Your task to perform on an android device: Search for bose soundlink mini on ebay.com, select the first entry, add it to the cart, then select checkout. Image 0: 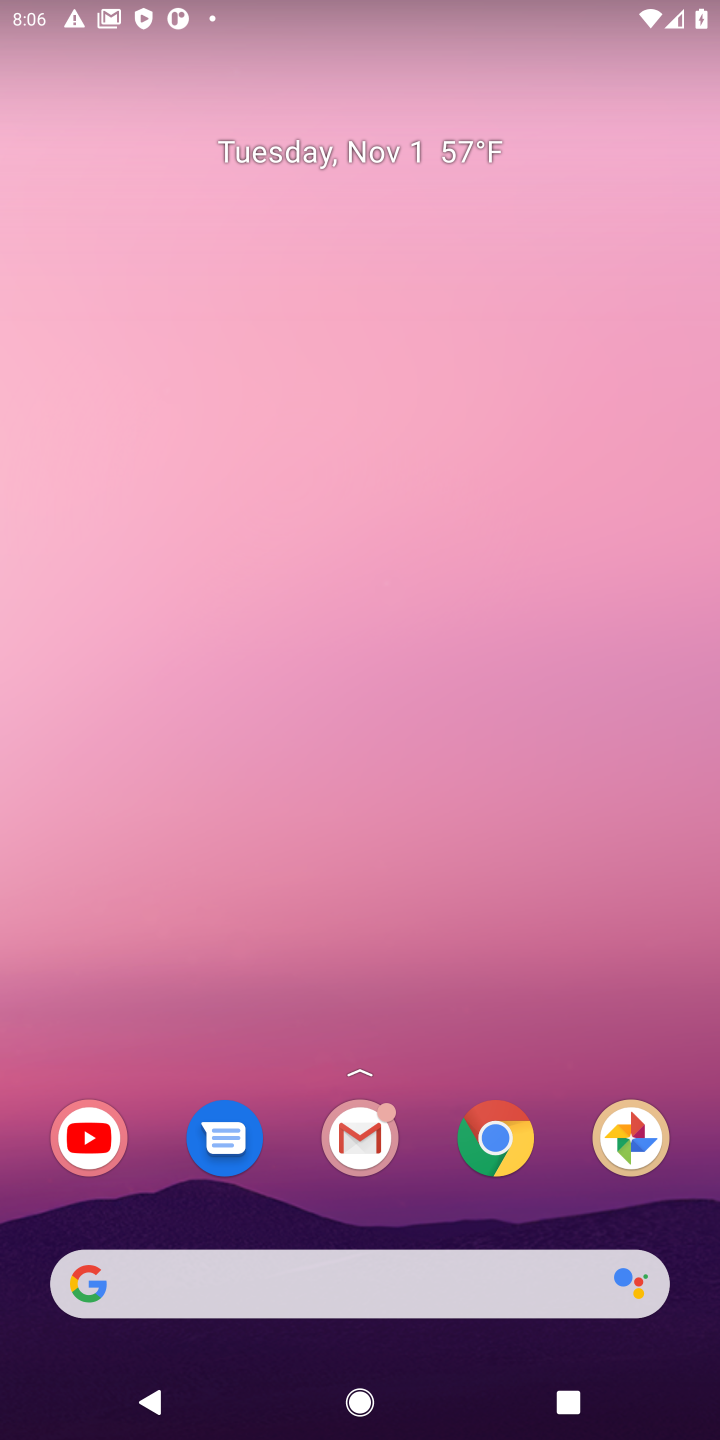
Step 0: click (499, 1141)
Your task to perform on an android device: Search for bose soundlink mini on ebay.com, select the first entry, add it to the cart, then select checkout. Image 1: 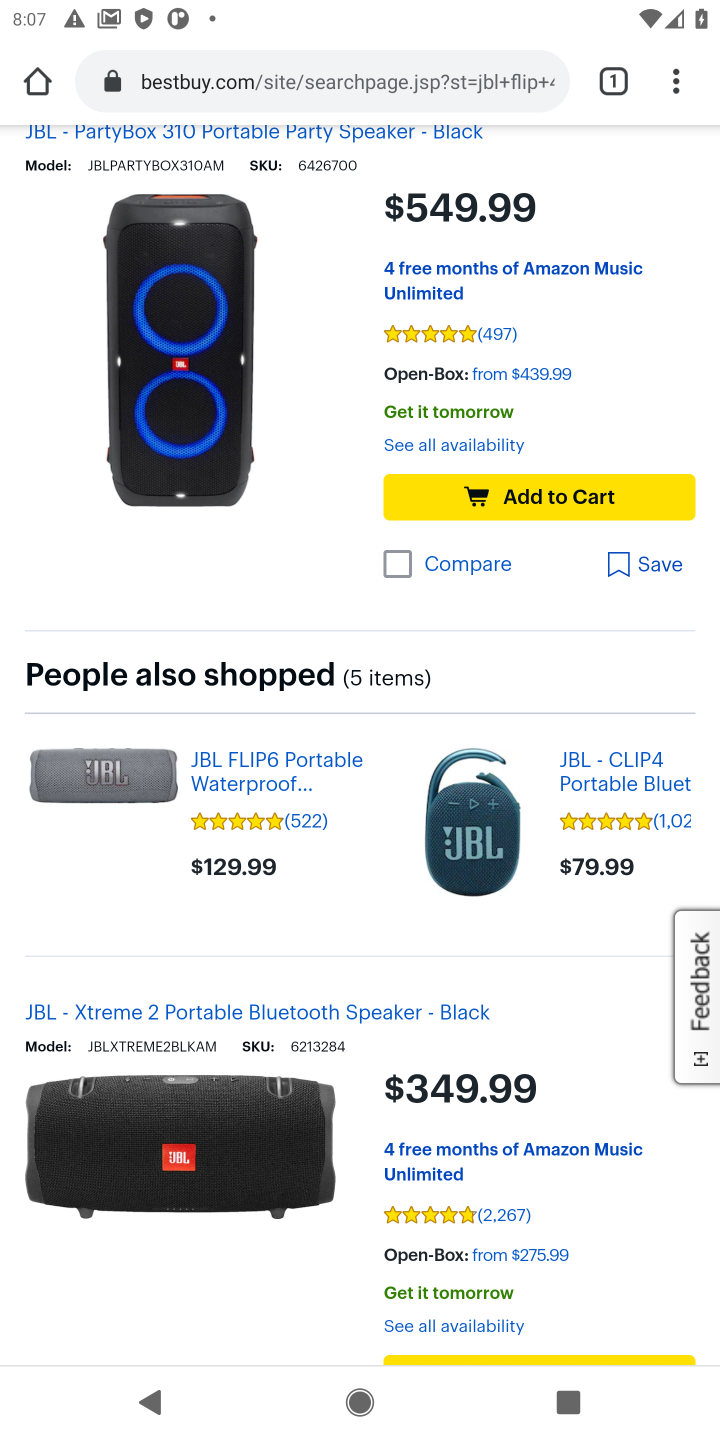
Step 1: click (201, 90)
Your task to perform on an android device: Search for bose soundlink mini on ebay.com, select the first entry, add it to the cart, then select checkout. Image 2: 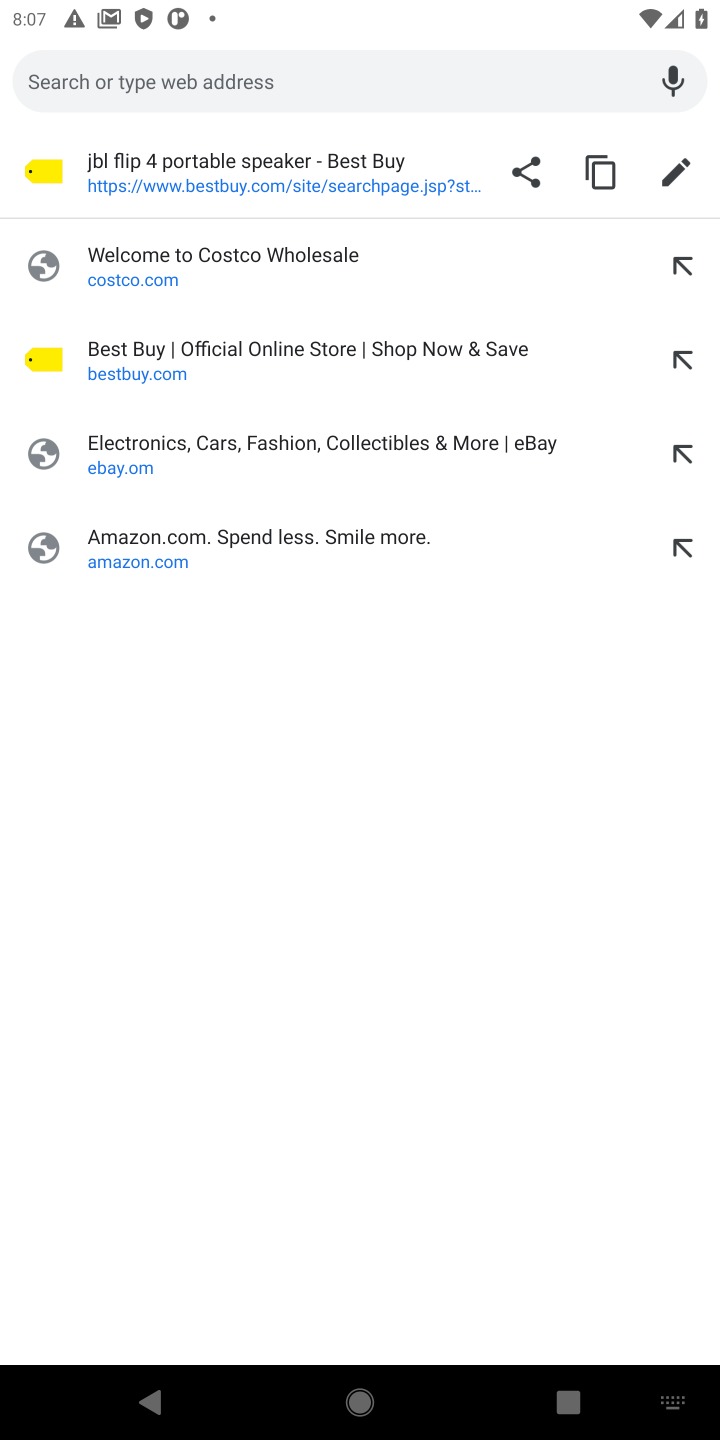
Step 2: type "ebay.com"
Your task to perform on an android device: Search for bose soundlink mini on ebay.com, select the first entry, add it to the cart, then select checkout. Image 3: 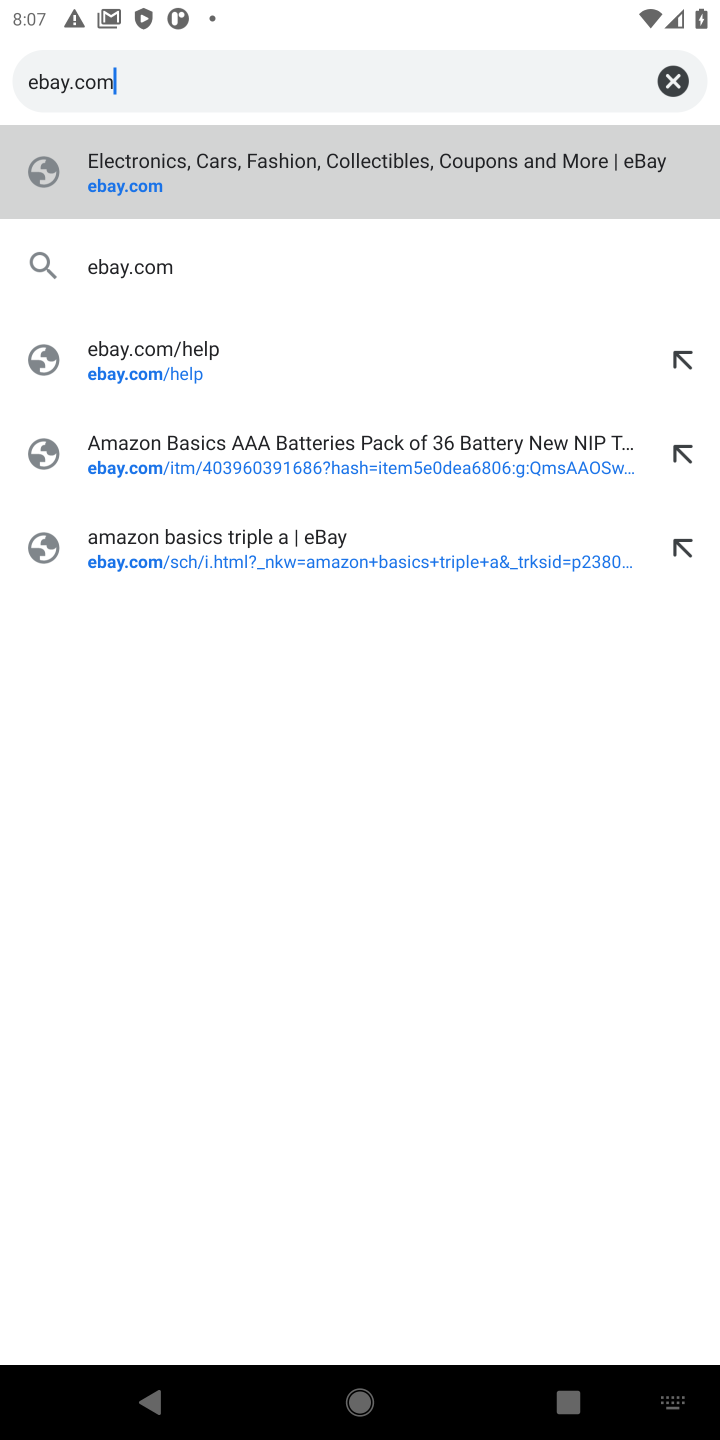
Step 3: click (137, 193)
Your task to perform on an android device: Search for bose soundlink mini on ebay.com, select the first entry, add it to the cart, then select checkout. Image 4: 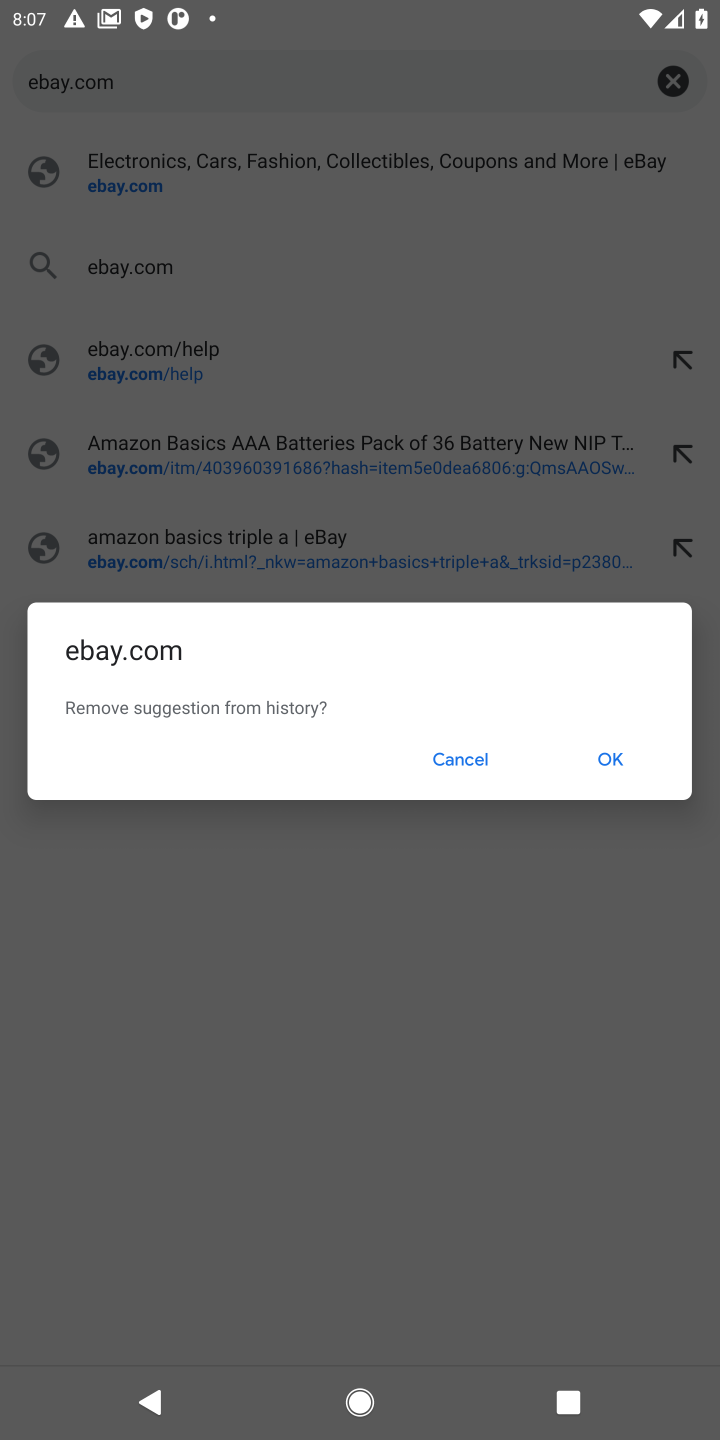
Step 4: click (474, 770)
Your task to perform on an android device: Search for bose soundlink mini on ebay.com, select the first entry, add it to the cart, then select checkout. Image 5: 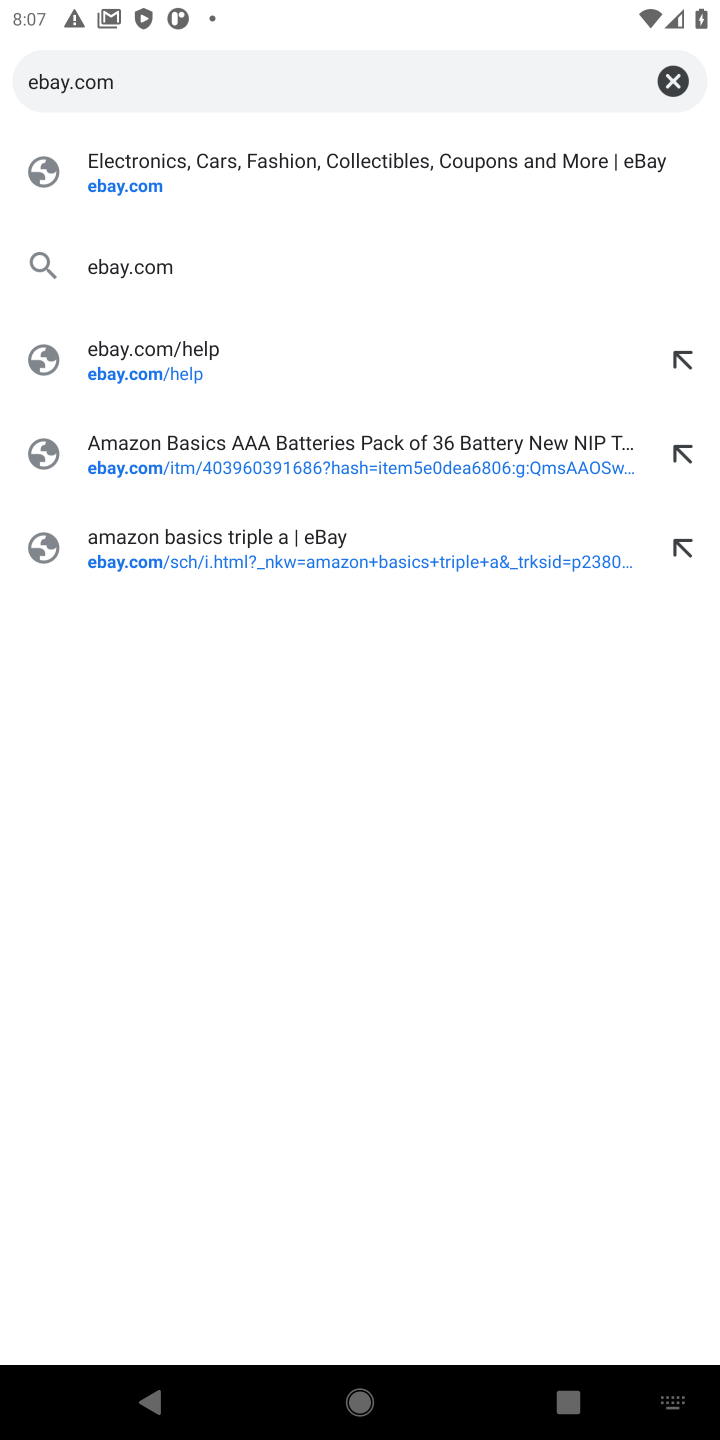
Step 5: click (122, 188)
Your task to perform on an android device: Search for bose soundlink mini on ebay.com, select the first entry, add it to the cart, then select checkout. Image 6: 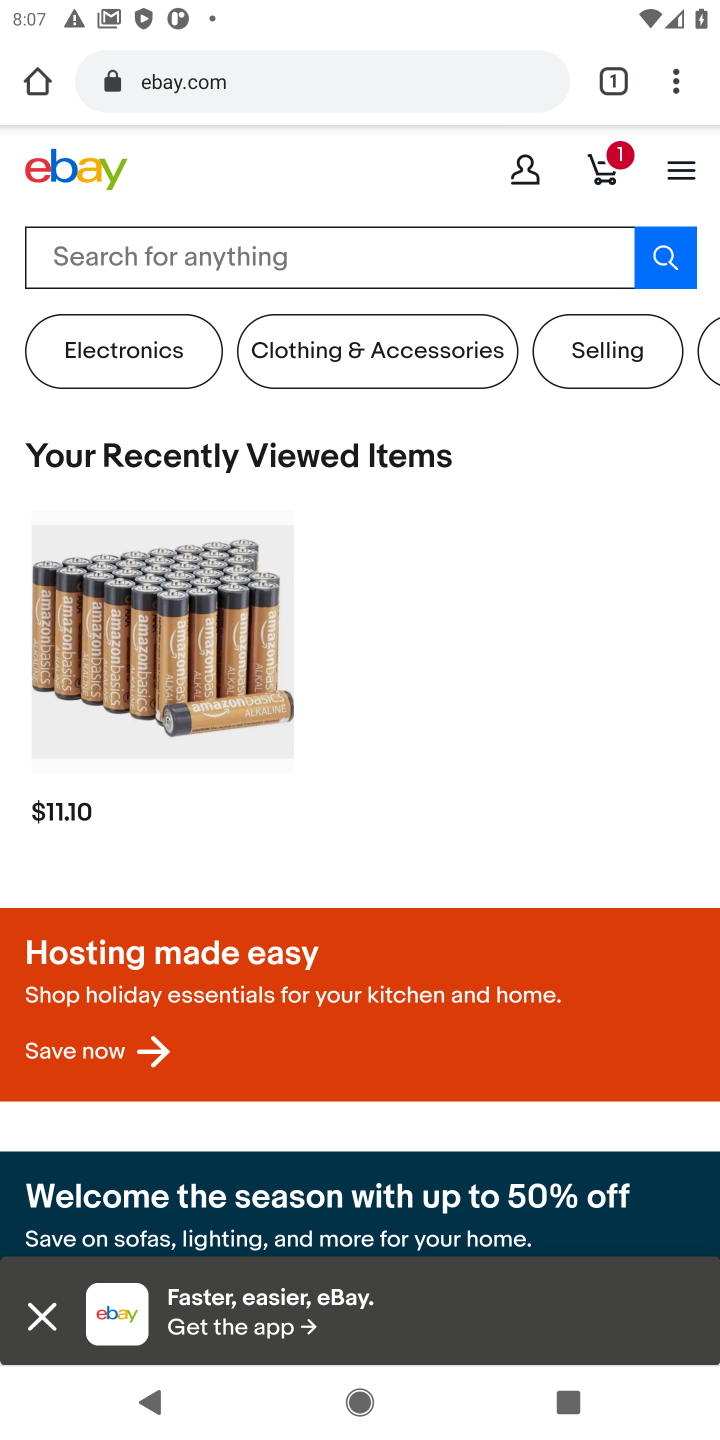
Step 6: click (235, 242)
Your task to perform on an android device: Search for bose soundlink mini on ebay.com, select the first entry, add it to the cart, then select checkout. Image 7: 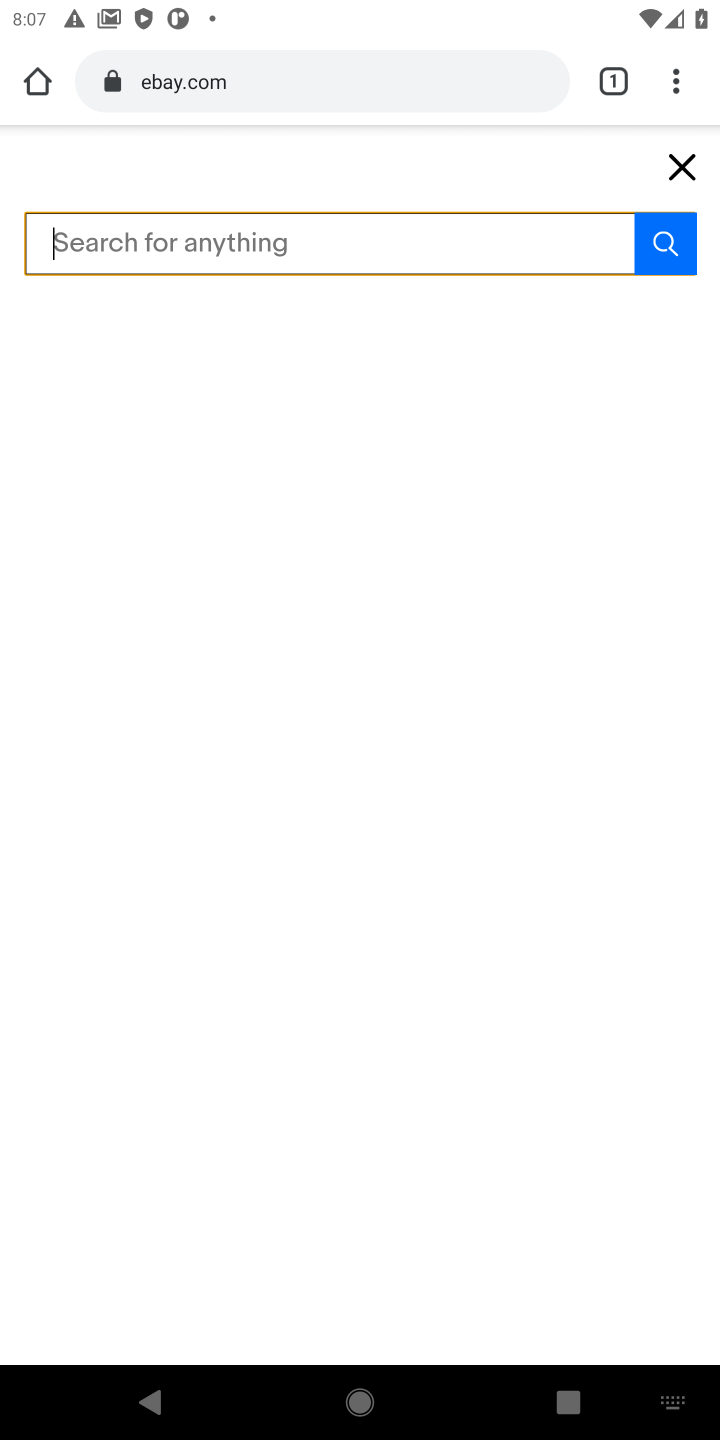
Step 7: type "bose soundlink mini"
Your task to perform on an android device: Search for bose soundlink mini on ebay.com, select the first entry, add it to the cart, then select checkout. Image 8: 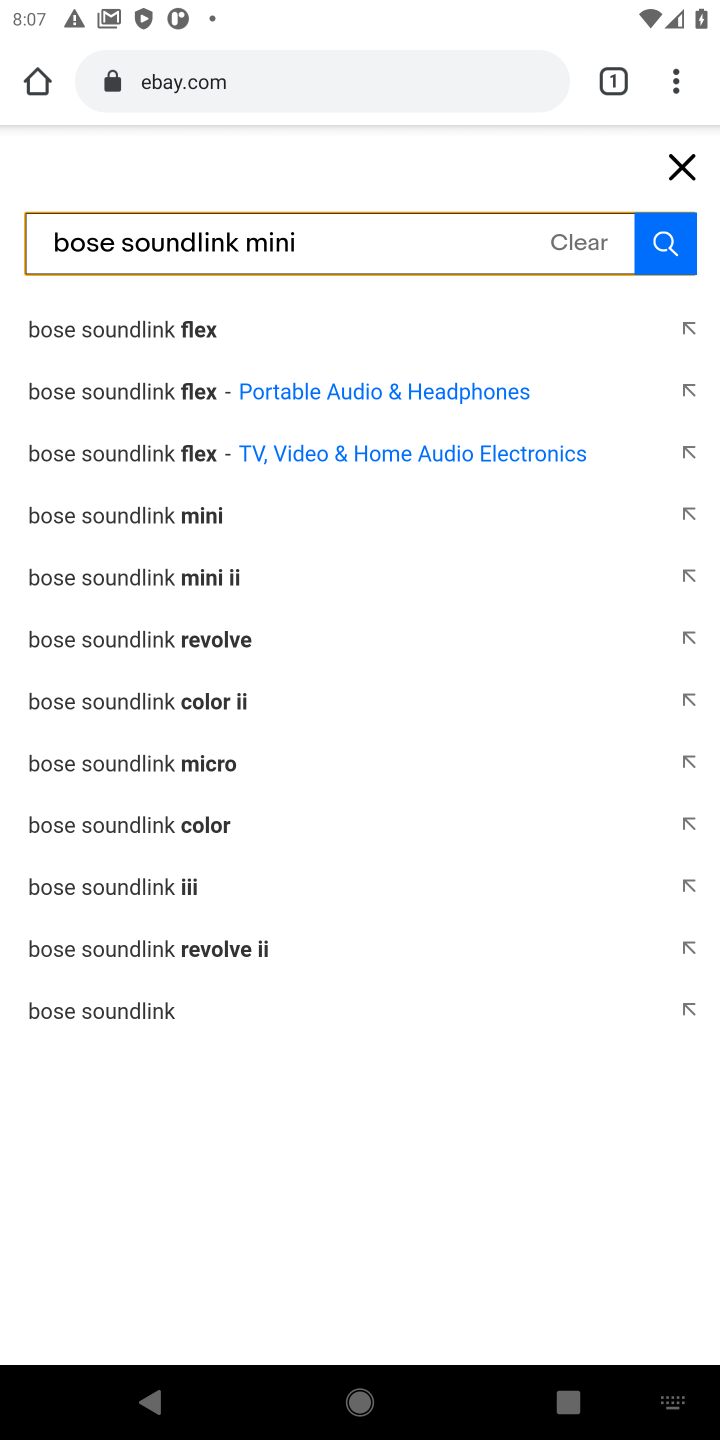
Step 8: click (154, 535)
Your task to perform on an android device: Search for bose soundlink mini on ebay.com, select the first entry, add it to the cart, then select checkout. Image 9: 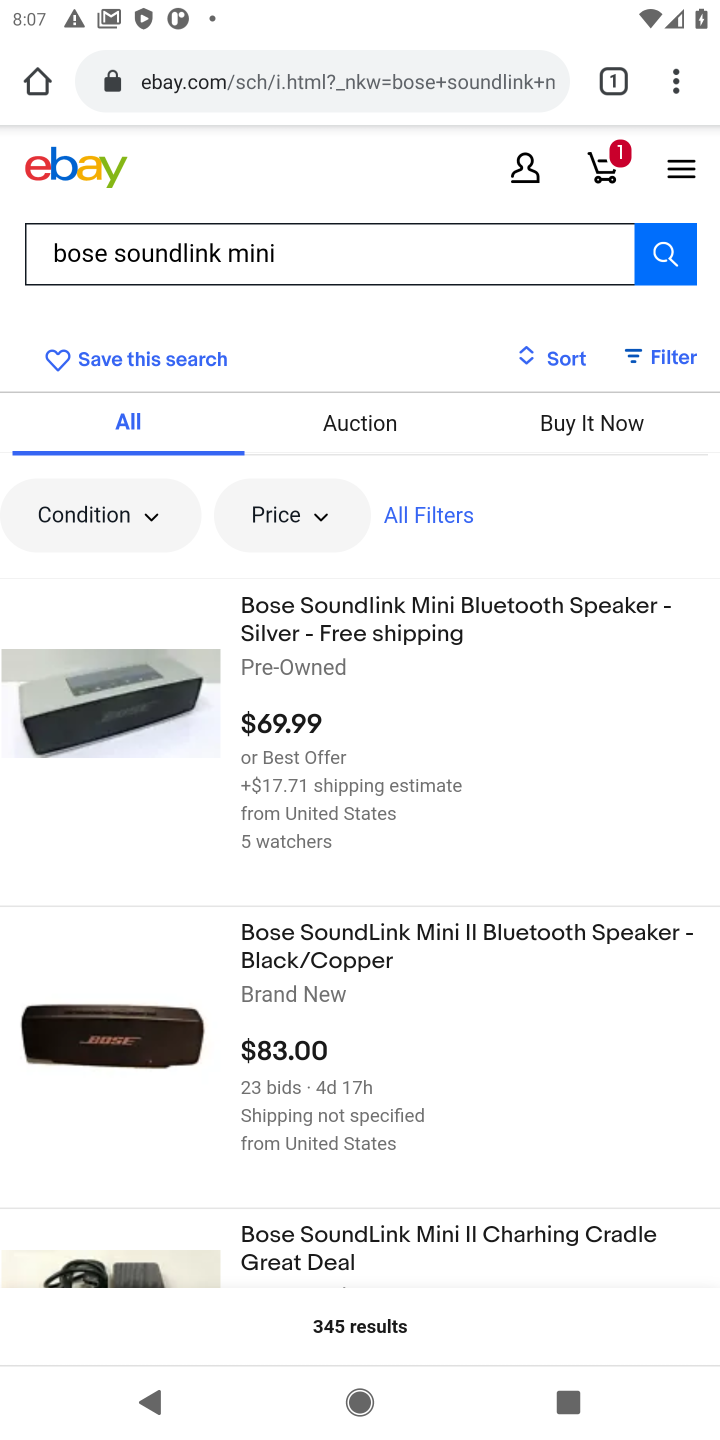
Step 9: click (297, 772)
Your task to perform on an android device: Search for bose soundlink mini on ebay.com, select the first entry, add it to the cart, then select checkout. Image 10: 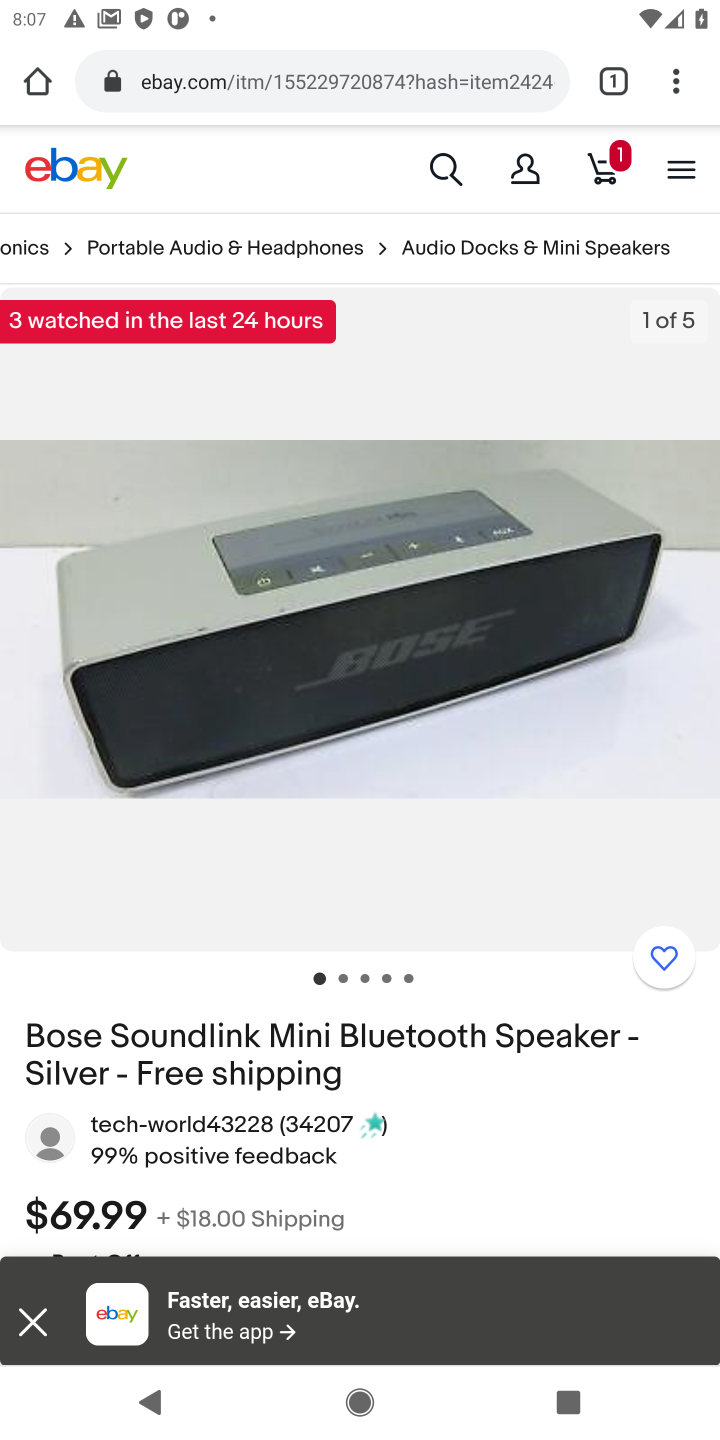
Step 10: drag from (457, 1154) to (393, 479)
Your task to perform on an android device: Search for bose soundlink mini on ebay.com, select the first entry, add it to the cart, then select checkout. Image 11: 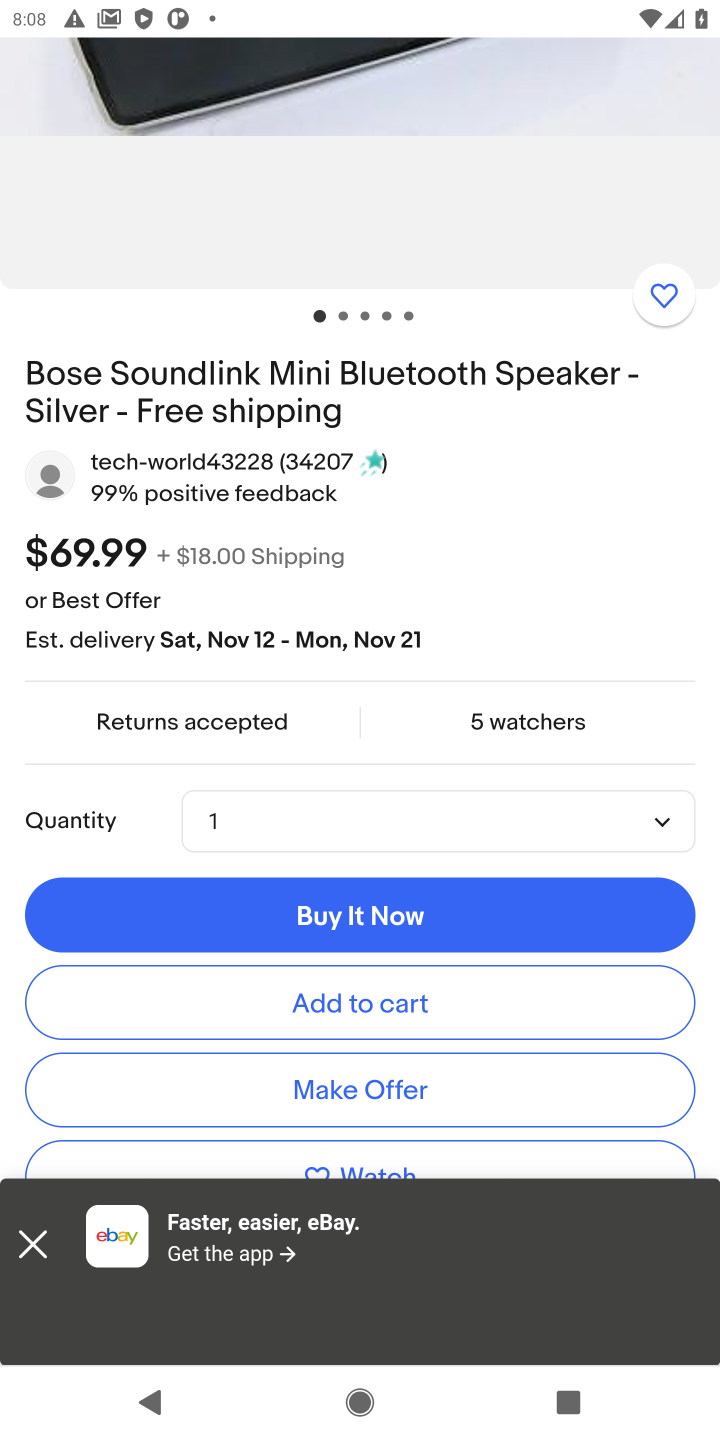
Step 11: click (314, 998)
Your task to perform on an android device: Search for bose soundlink mini on ebay.com, select the first entry, add it to the cart, then select checkout. Image 12: 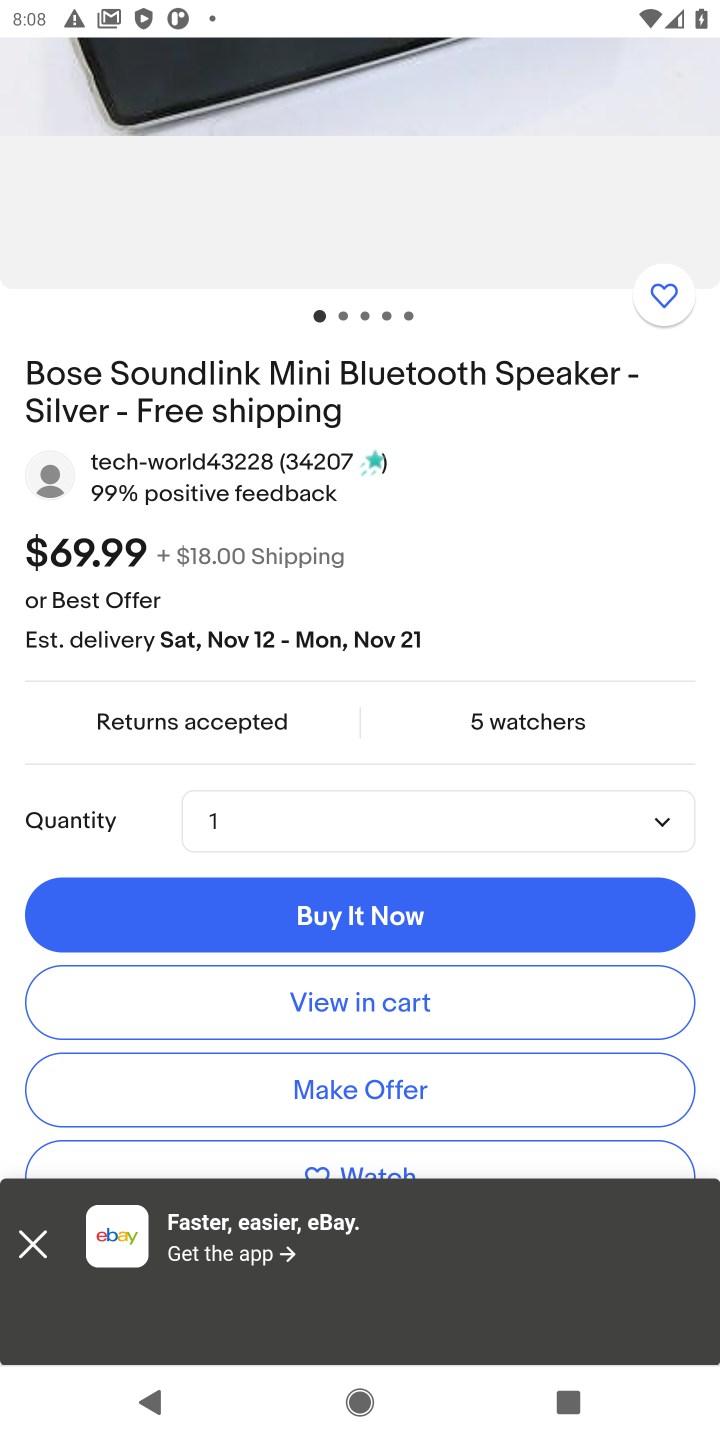
Step 12: click (314, 998)
Your task to perform on an android device: Search for bose soundlink mini on ebay.com, select the first entry, add it to the cart, then select checkout. Image 13: 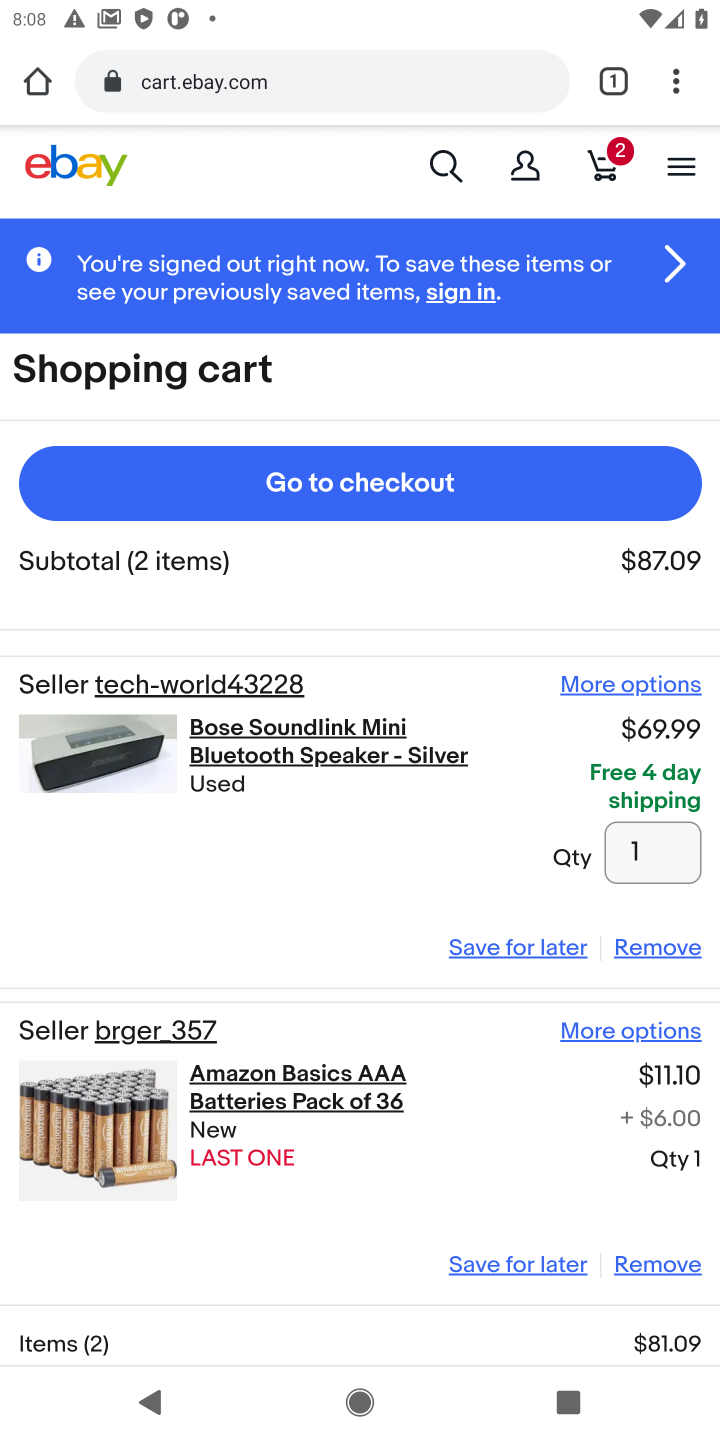
Step 13: click (349, 495)
Your task to perform on an android device: Search for bose soundlink mini on ebay.com, select the first entry, add it to the cart, then select checkout. Image 14: 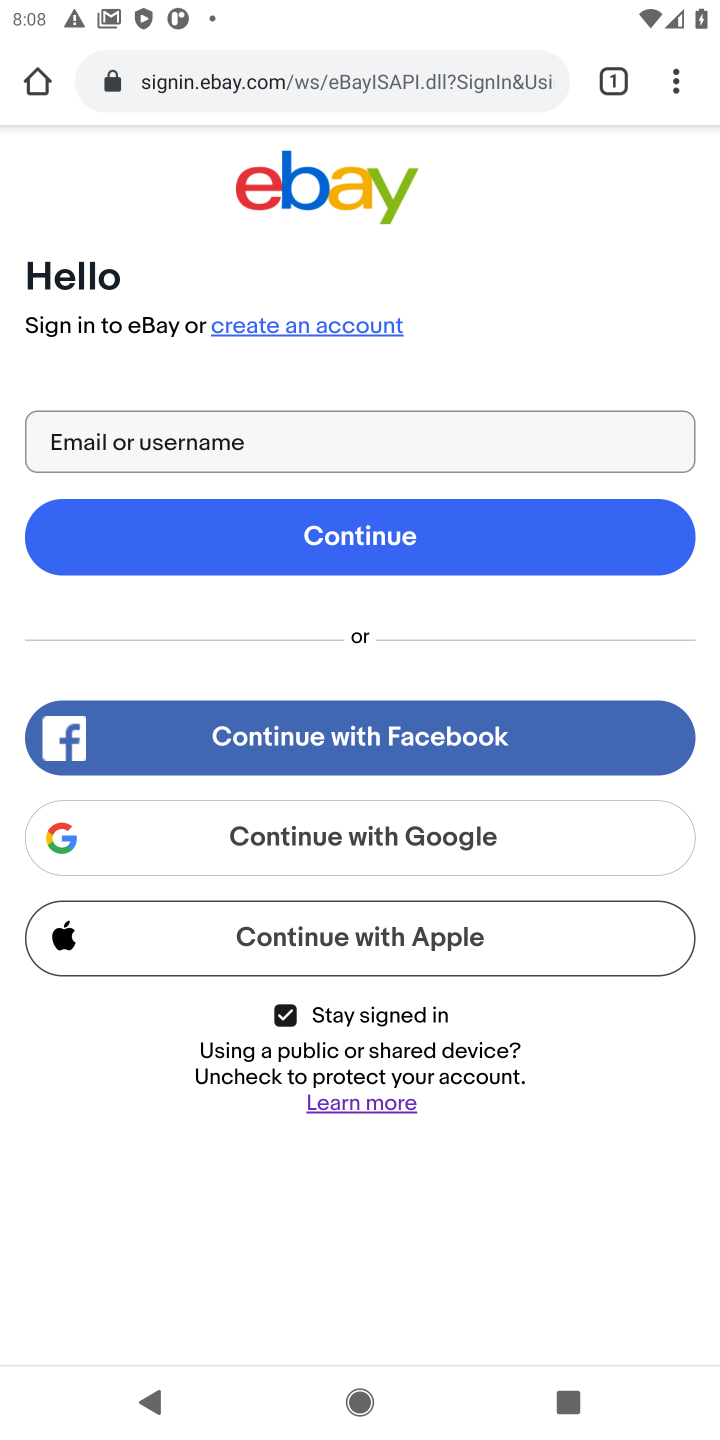
Step 14: task complete